Your task to perform on an android device: create a new album in the google photos Image 0: 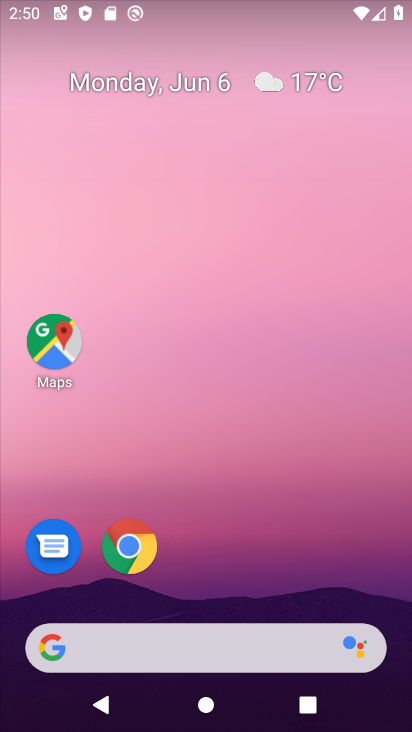
Step 0: drag from (228, 569) to (271, 128)
Your task to perform on an android device: create a new album in the google photos Image 1: 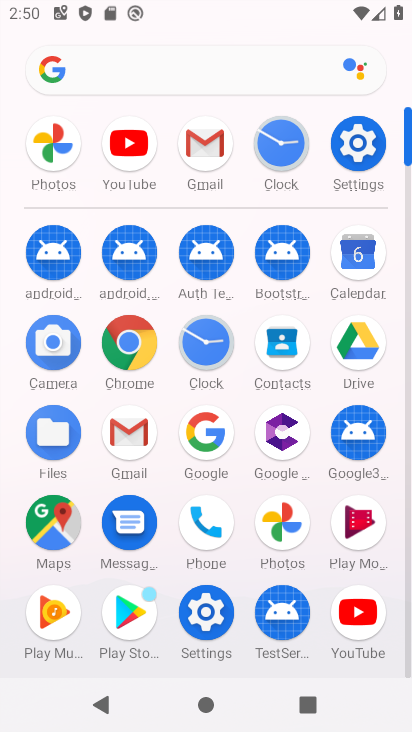
Step 1: click (263, 535)
Your task to perform on an android device: create a new album in the google photos Image 2: 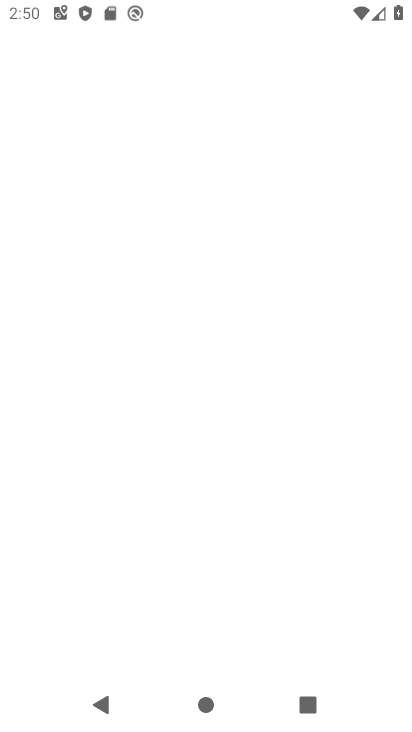
Step 2: task complete